Your task to perform on an android device: turn on airplane mode Image 0: 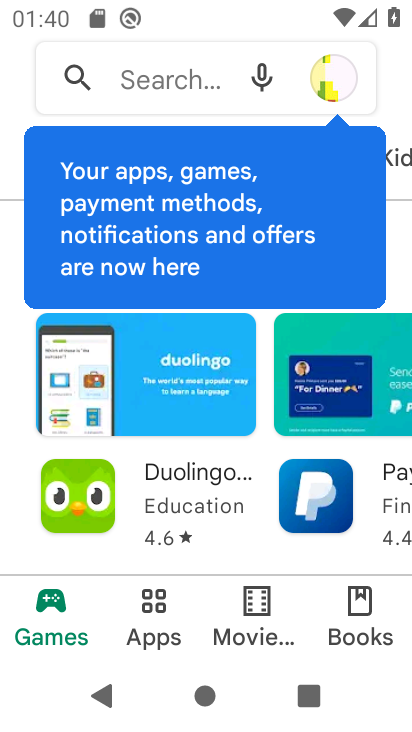
Step 0: press home button
Your task to perform on an android device: turn on airplane mode Image 1: 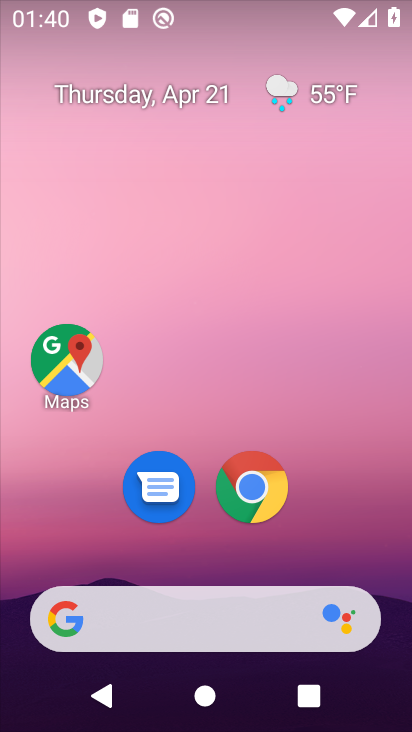
Step 1: drag from (336, 503) to (311, 7)
Your task to perform on an android device: turn on airplane mode Image 2: 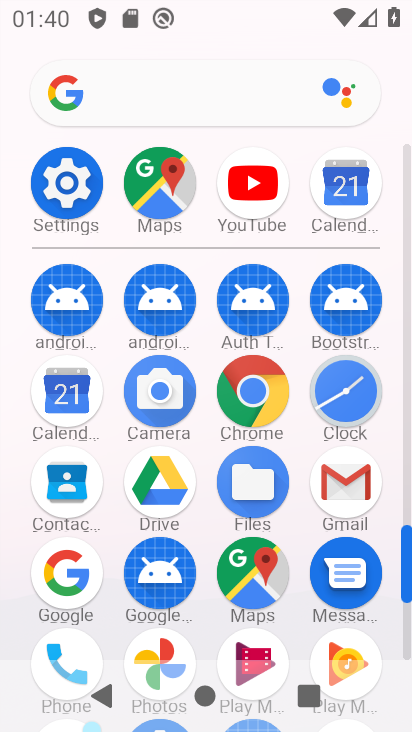
Step 2: click (74, 203)
Your task to perform on an android device: turn on airplane mode Image 3: 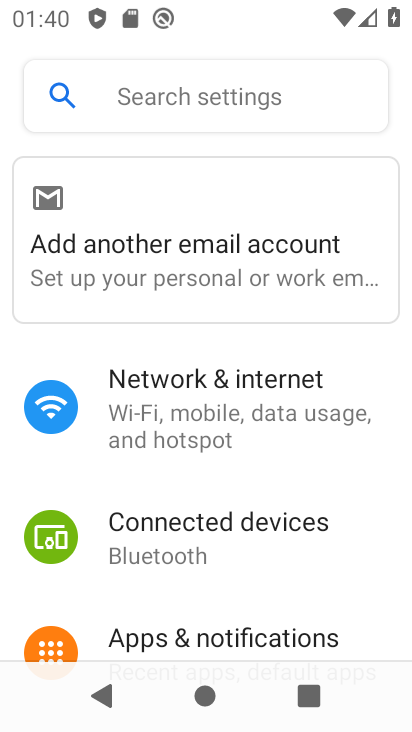
Step 3: click (179, 416)
Your task to perform on an android device: turn on airplane mode Image 4: 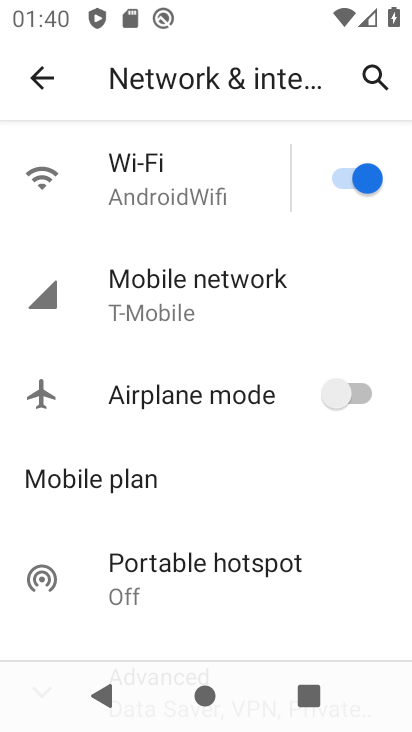
Step 4: click (356, 385)
Your task to perform on an android device: turn on airplane mode Image 5: 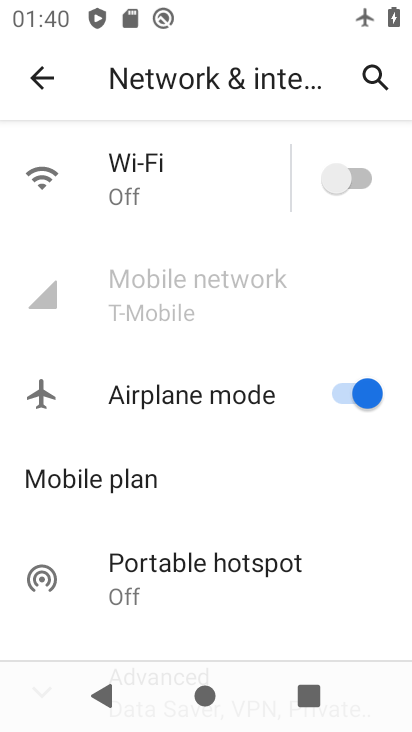
Step 5: task complete